Your task to perform on an android device: What time is it? Image 0: 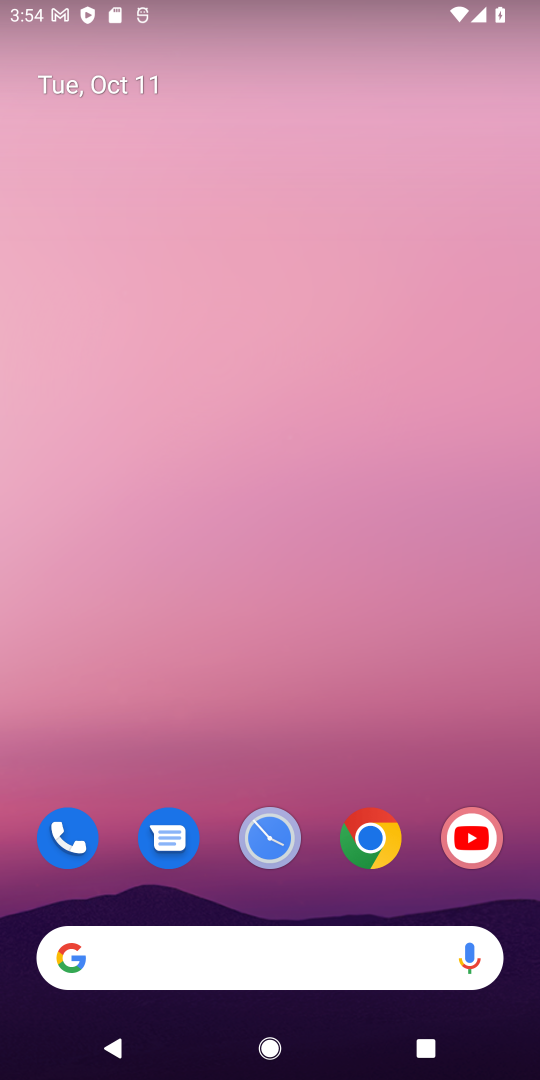
Step 0: click (200, 950)
Your task to perform on an android device: What time is it? Image 1: 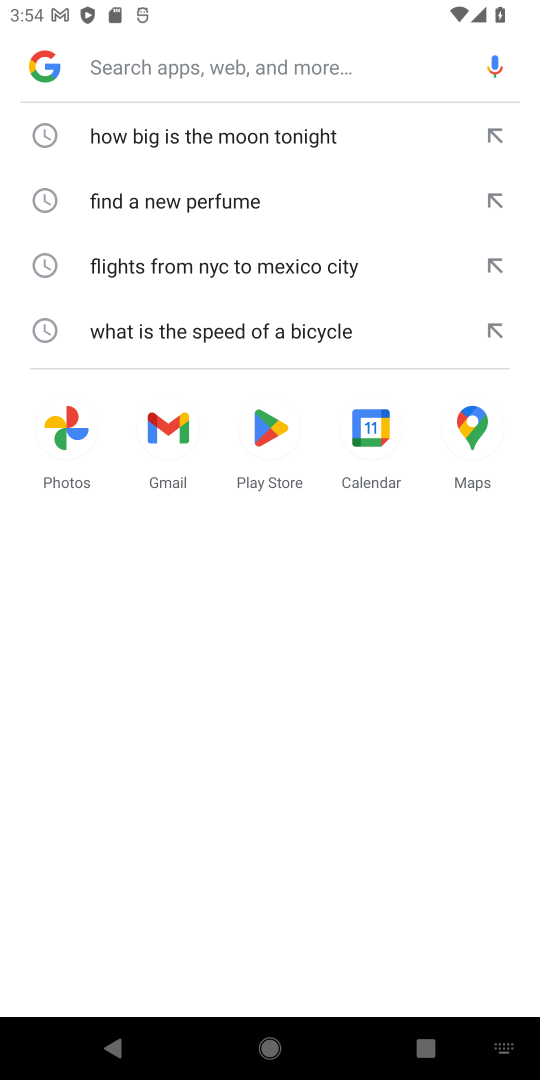
Step 1: type "What time is it?"
Your task to perform on an android device: What time is it? Image 2: 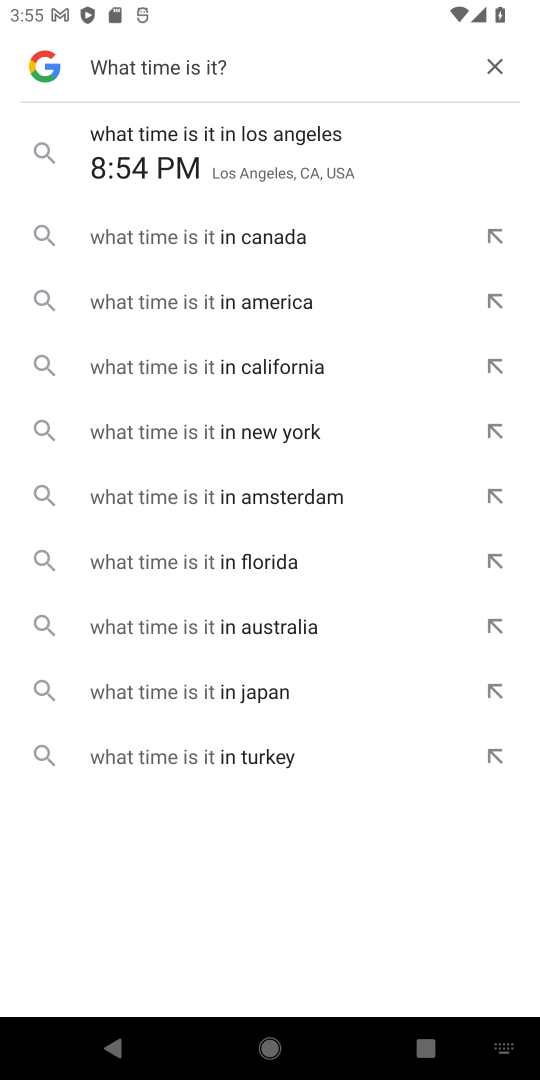
Step 2: click (287, 164)
Your task to perform on an android device: What time is it? Image 3: 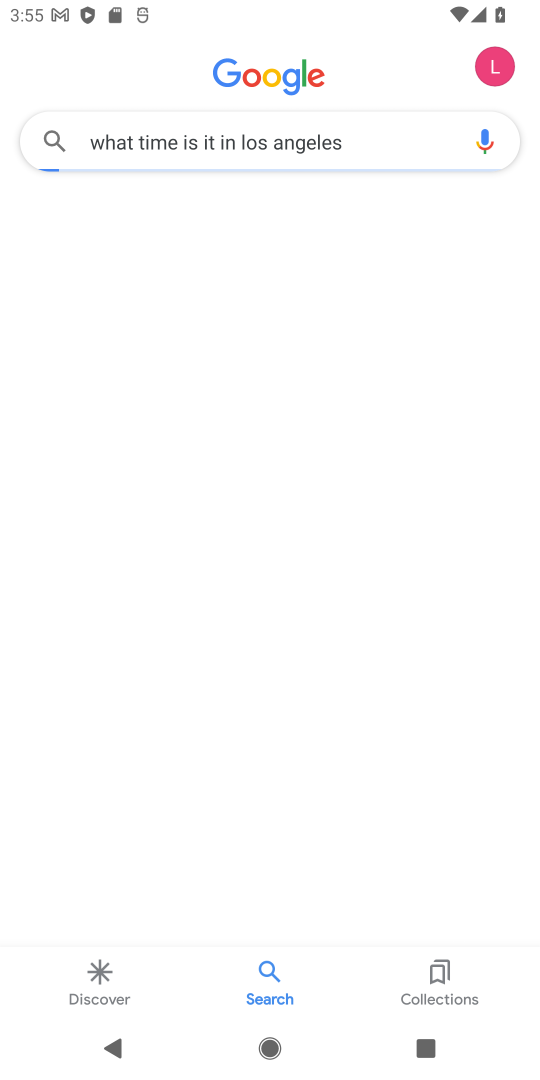
Step 3: task complete